Your task to perform on an android device: What's on my calendar tomorrow? Image 0: 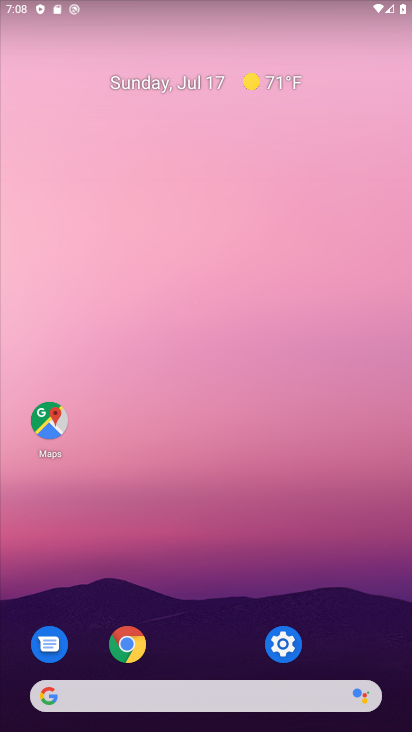
Step 0: drag from (253, 692) to (213, 130)
Your task to perform on an android device: What's on my calendar tomorrow? Image 1: 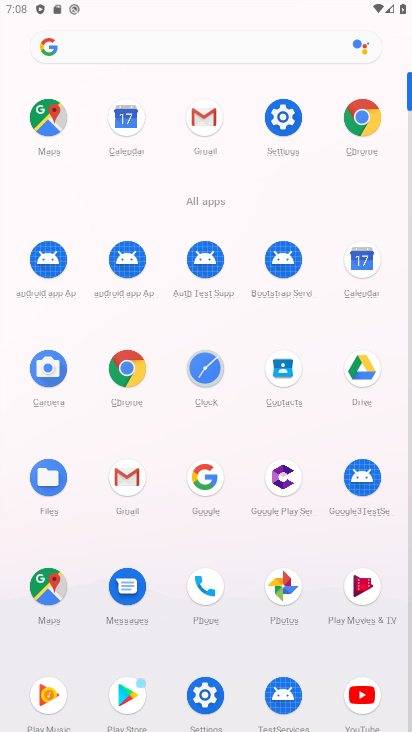
Step 1: click (358, 279)
Your task to perform on an android device: What's on my calendar tomorrow? Image 2: 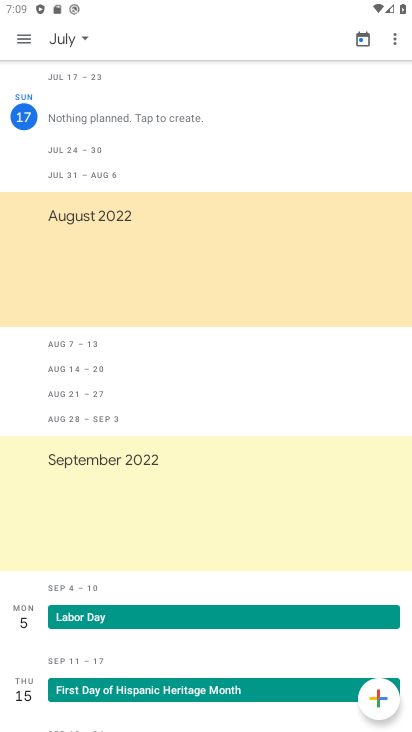
Step 2: click (25, 41)
Your task to perform on an android device: What's on my calendar tomorrow? Image 3: 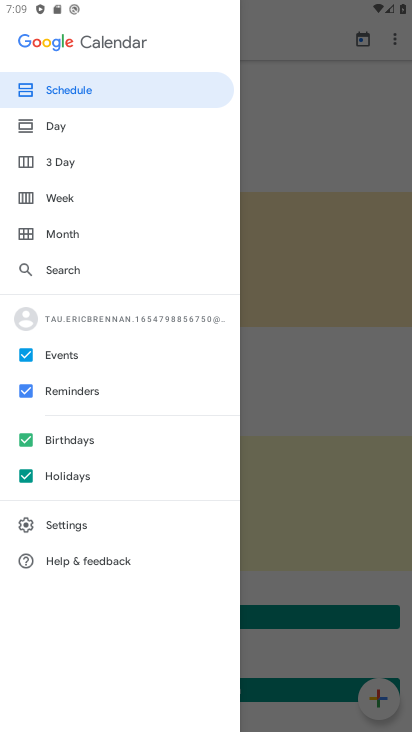
Step 3: click (81, 163)
Your task to perform on an android device: What's on my calendar tomorrow? Image 4: 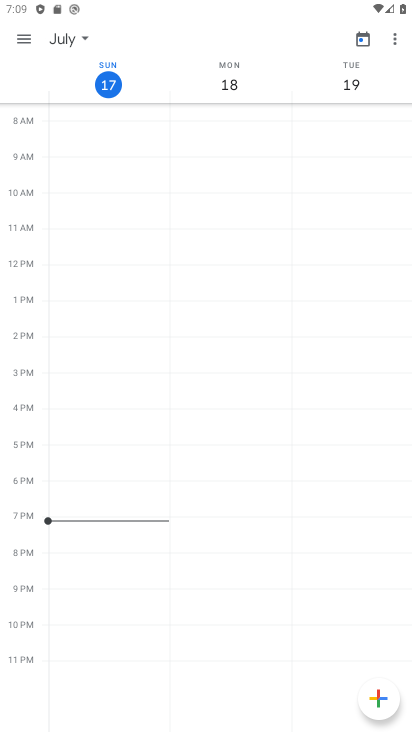
Step 4: click (237, 90)
Your task to perform on an android device: What's on my calendar tomorrow? Image 5: 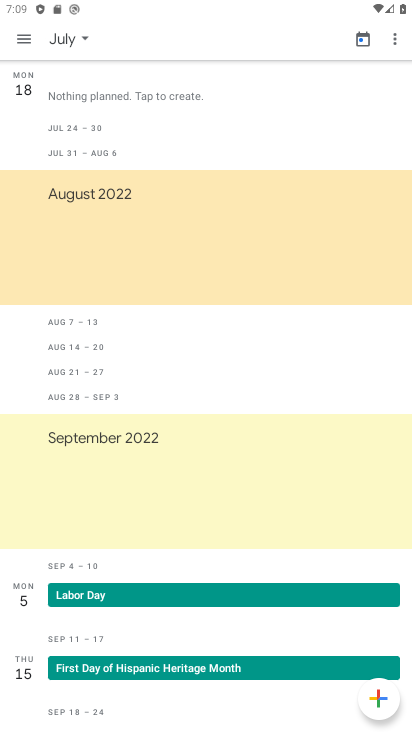
Step 5: task complete